Your task to perform on an android device: See recent photos Image 0: 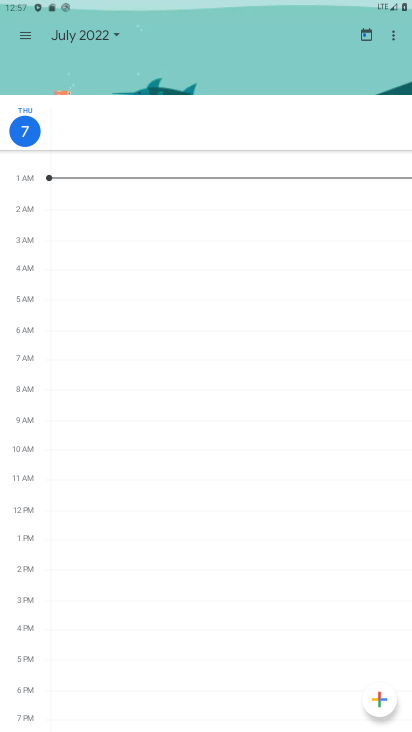
Step 0: press home button
Your task to perform on an android device: See recent photos Image 1: 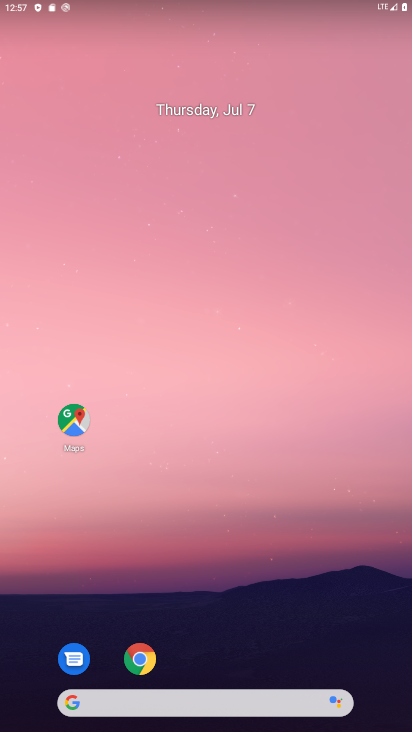
Step 1: drag from (230, 575) to (153, 183)
Your task to perform on an android device: See recent photos Image 2: 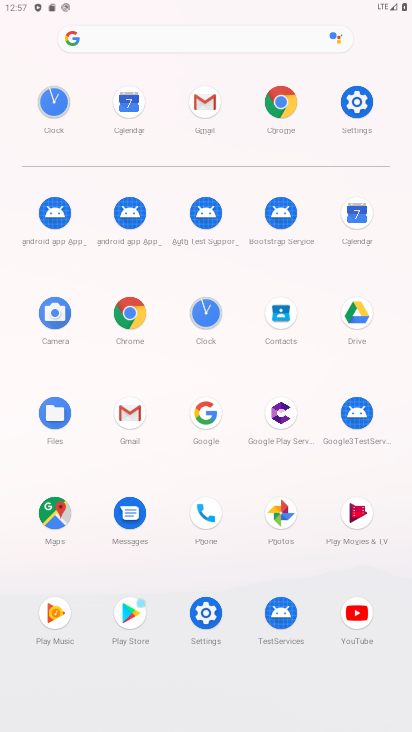
Step 2: click (281, 513)
Your task to perform on an android device: See recent photos Image 3: 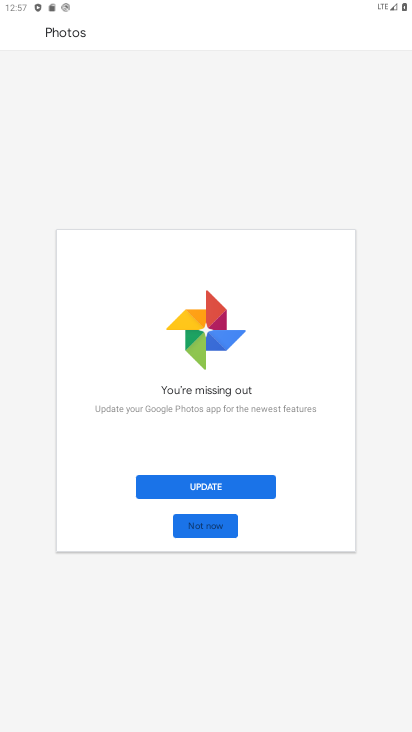
Step 3: click (208, 486)
Your task to perform on an android device: See recent photos Image 4: 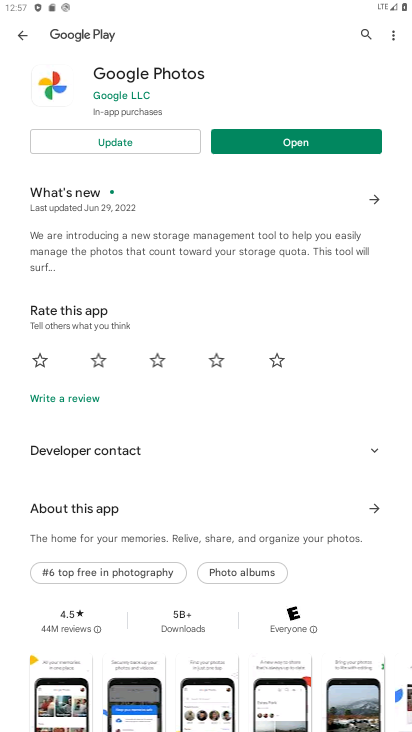
Step 4: click (144, 131)
Your task to perform on an android device: See recent photos Image 5: 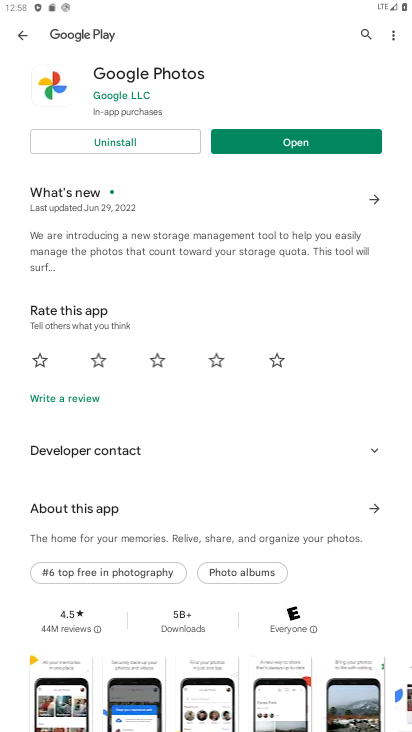
Step 5: click (244, 139)
Your task to perform on an android device: See recent photos Image 6: 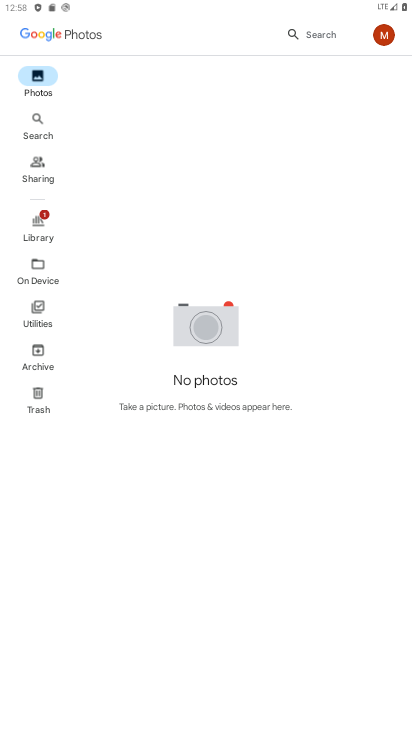
Step 6: task complete